Your task to perform on an android device: toggle translation in the chrome app Image 0: 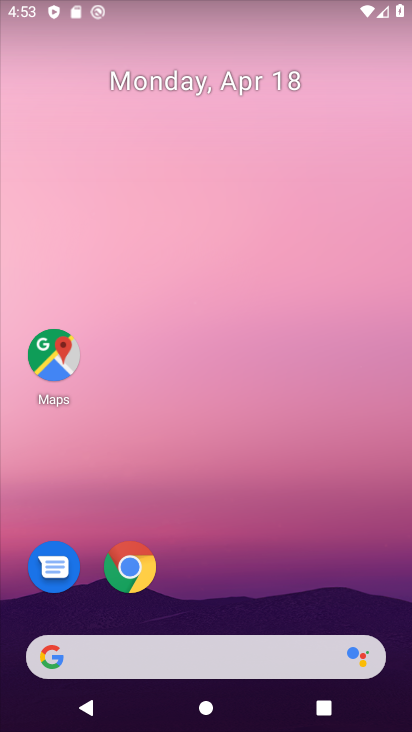
Step 0: drag from (294, 438) to (218, 7)
Your task to perform on an android device: toggle translation in the chrome app Image 1: 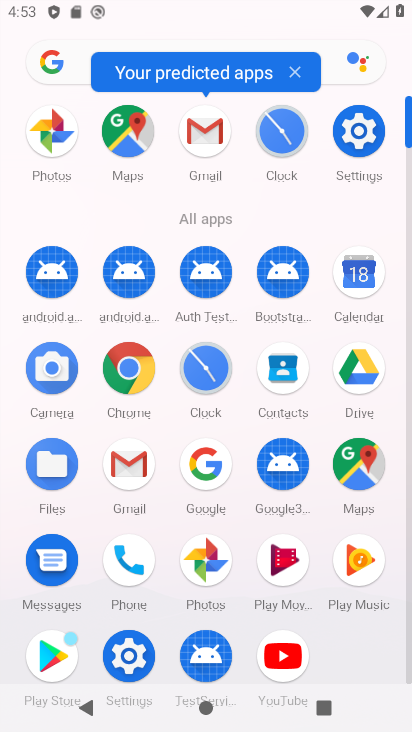
Step 1: drag from (11, 499) to (0, 277)
Your task to perform on an android device: toggle translation in the chrome app Image 2: 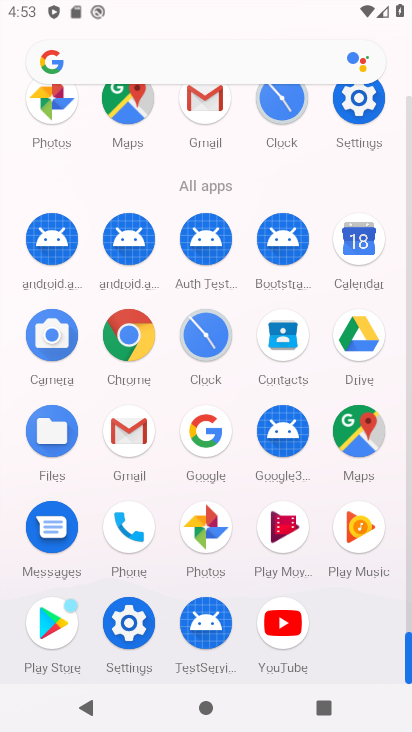
Step 2: click (133, 337)
Your task to perform on an android device: toggle translation in the chrome app Image 3: 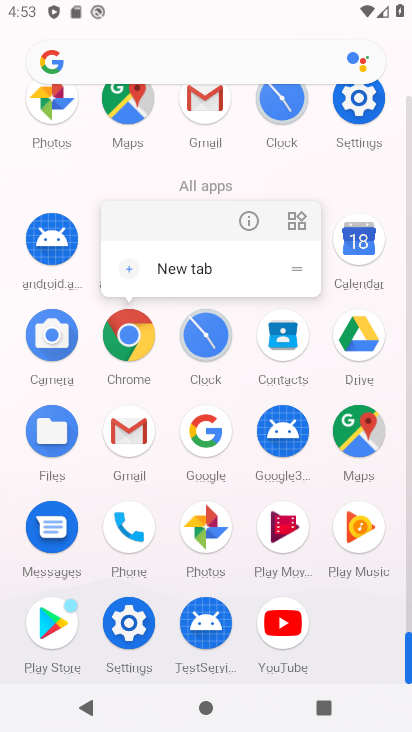
Step 3: click (133, 337)
Your task to perform on an android device: toggle translation in the chrome app Image 4: 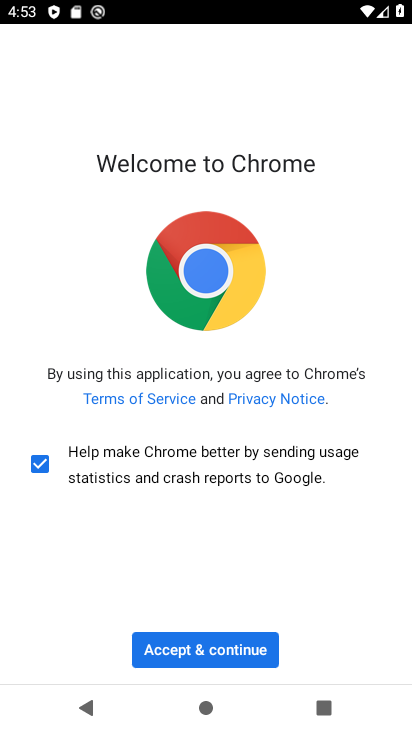
Step 4: click (232, 640)
Your task to perform on an android device: toggle translation in the chrome app Image 5: 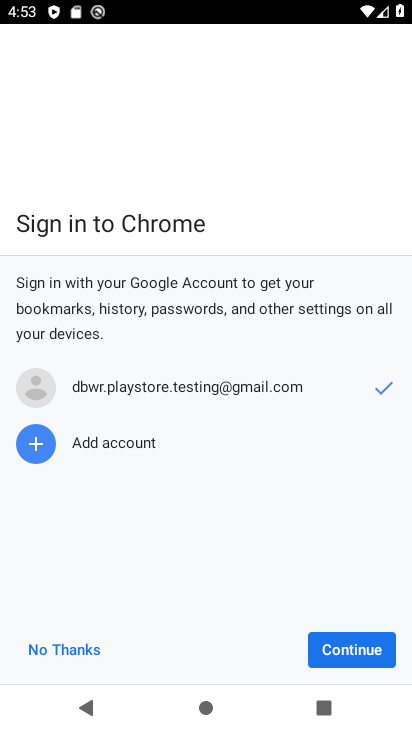
Step 5: click (357, 648)
Your task to perform on an android device: toggle translation in the chrome app Image 6: 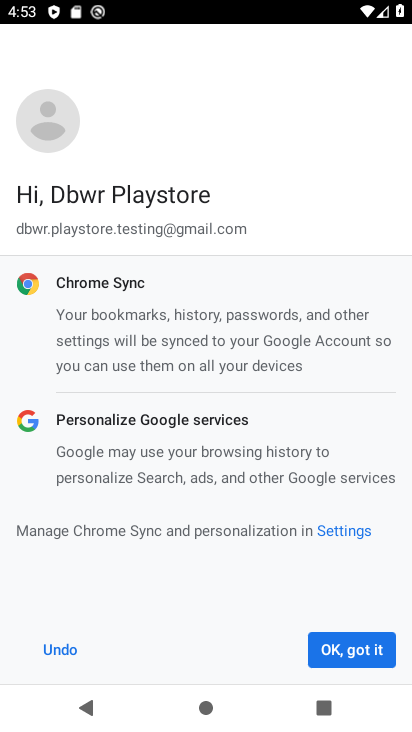
Step 6: click (343, 672)
Your task to perform on an android device: toggle translation in the chrome app Image 7: 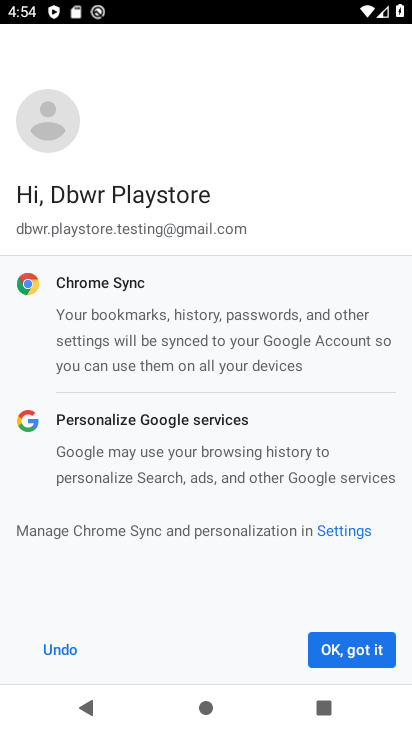
Step 7: click (345, 649)
Your task to perform on an android device: toggle translation in the chrome app Image 8: 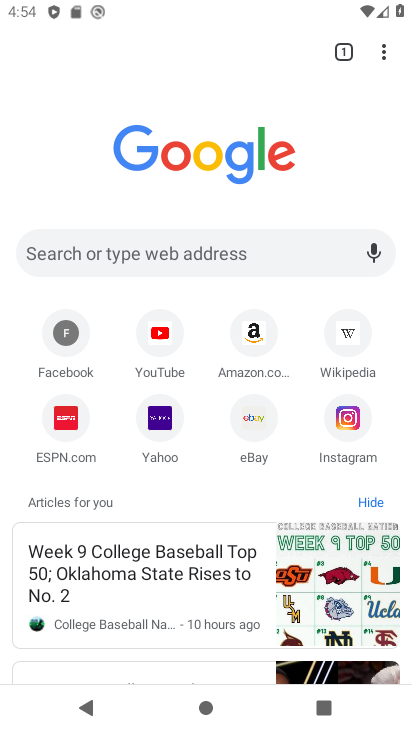
Step 8: drag from (17, 472) to (10, 142)
Your task to perform on an android device: toggle translation in the chrome app Image 9: 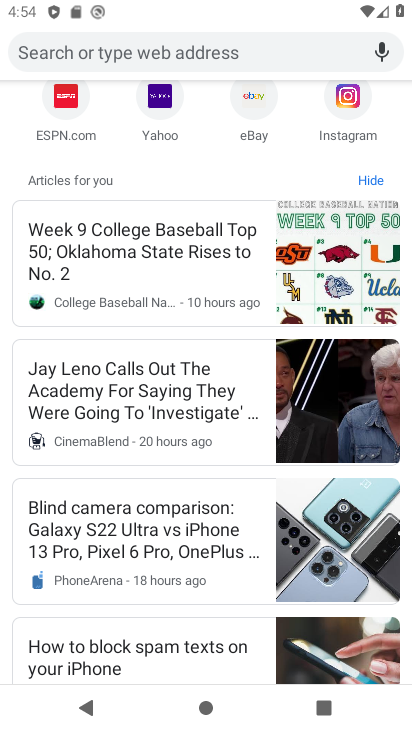
Step 9: drag from (194, 192) to (165, 586)
Your task to perform on an android device: toggle translation in the chrome app Image 10: 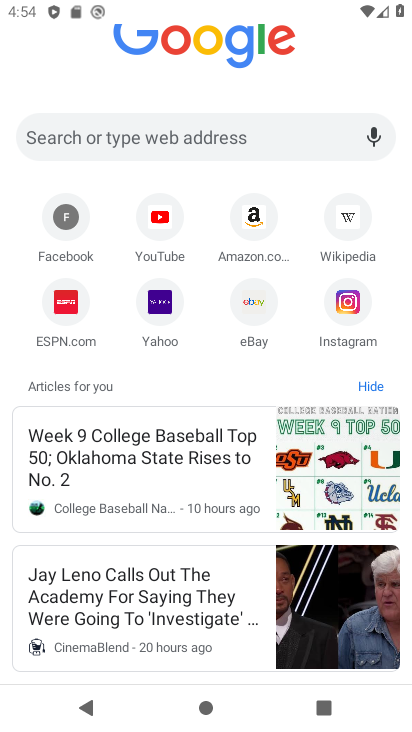
Step 10: drag from (255, 162) to (239, 507)
Your task to perform on an android device: toggle translation in the chrome app Image 11: 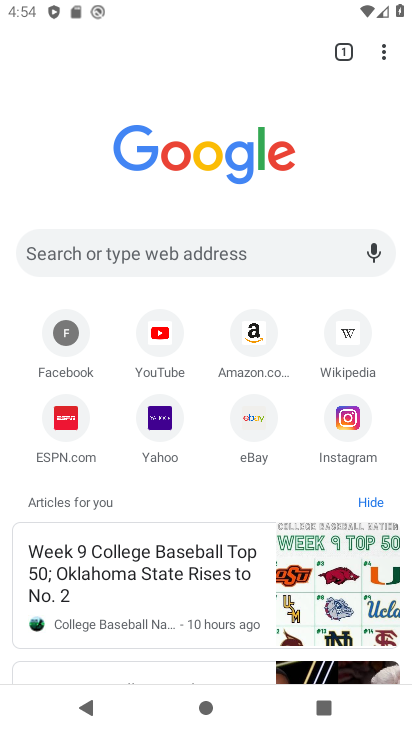
Step 11: click (383, 49)
Your task to perform on an android device: toggle translation in the chrome app Image 12: 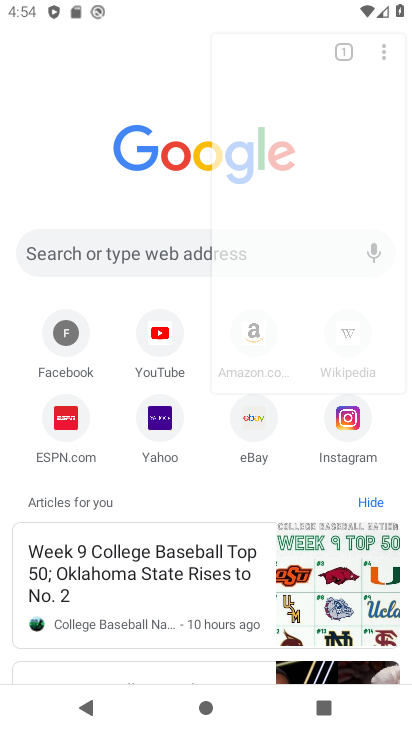
Step 12: click (383, 49)
Your task to perform on an android device: toggle translation in the chrome app Image 13: 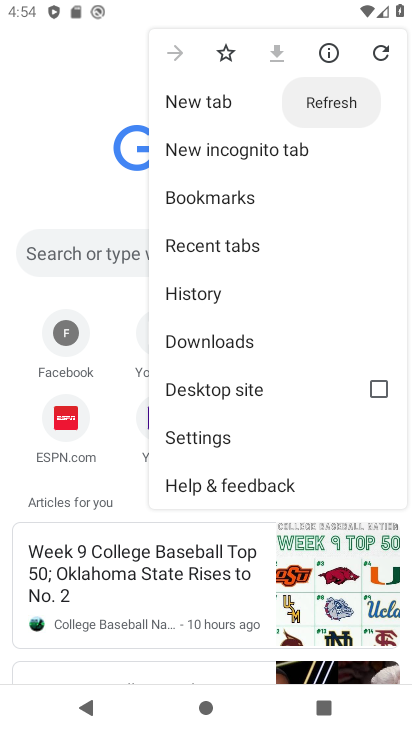
Step 13: drag from (258, 392) to (260, 133)
Your task to perform on an android device: toggle translation in the chrome app Image 14: 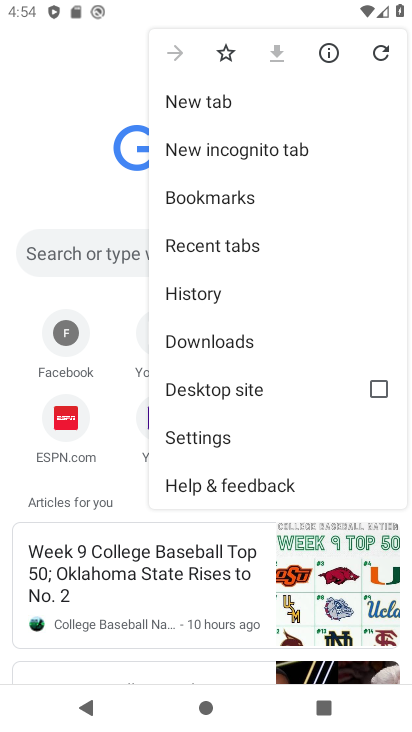
Step 14: click (215, 434)
Your task to perform on an android device: toggle translation in the chrome app Image 15: 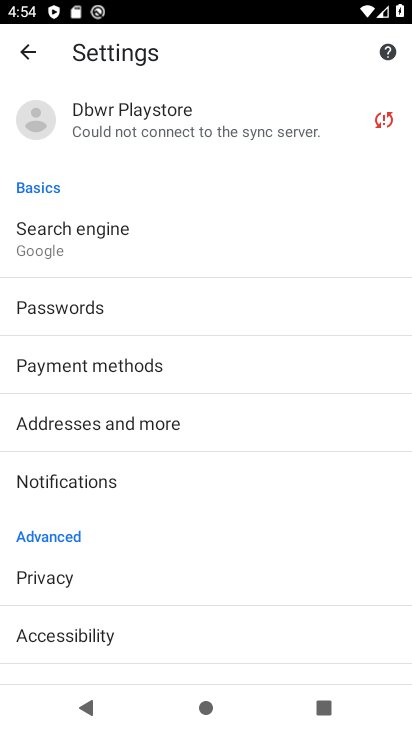
Step 15: drag from (213, 563) to (205, 228)
Your task to perform on an android device: toggle translation in the chrome app Image 16: 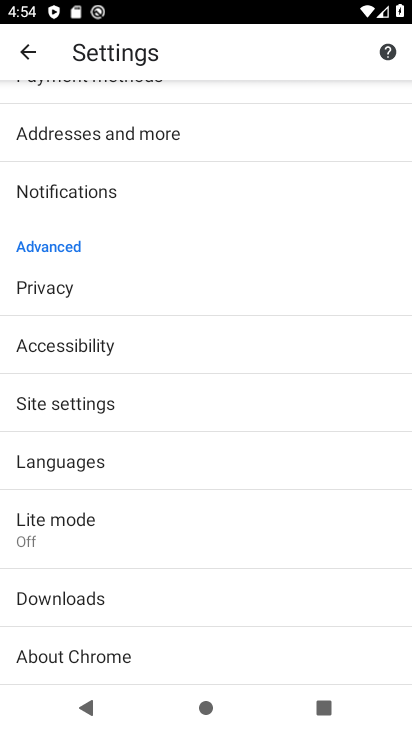
Step 16: click (115, 468)
Your task to perform on an android device: toggle translation in the chrome app Image 17: 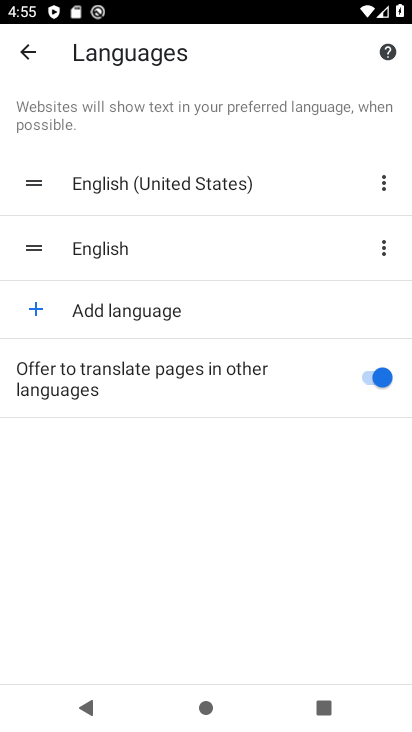
Step 17: click (371, 381)
Your task to perform on an android device: toggle translation in the chrome app Image 18: 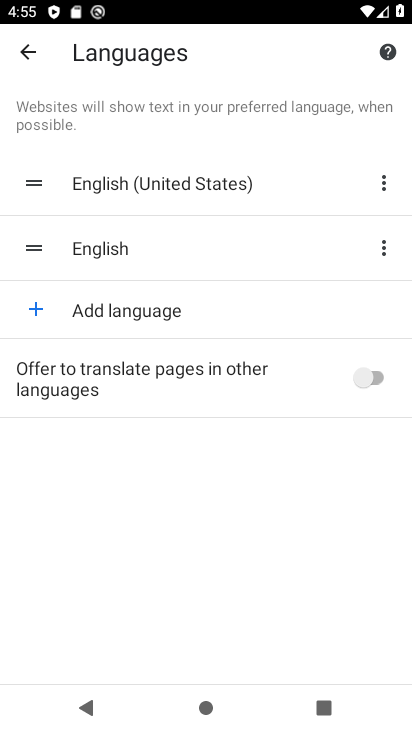
Step 18: task complete